Your task to perform on an android device: Add "macbook pro 15 inch" to the cart on bestbuy.com Image 0: 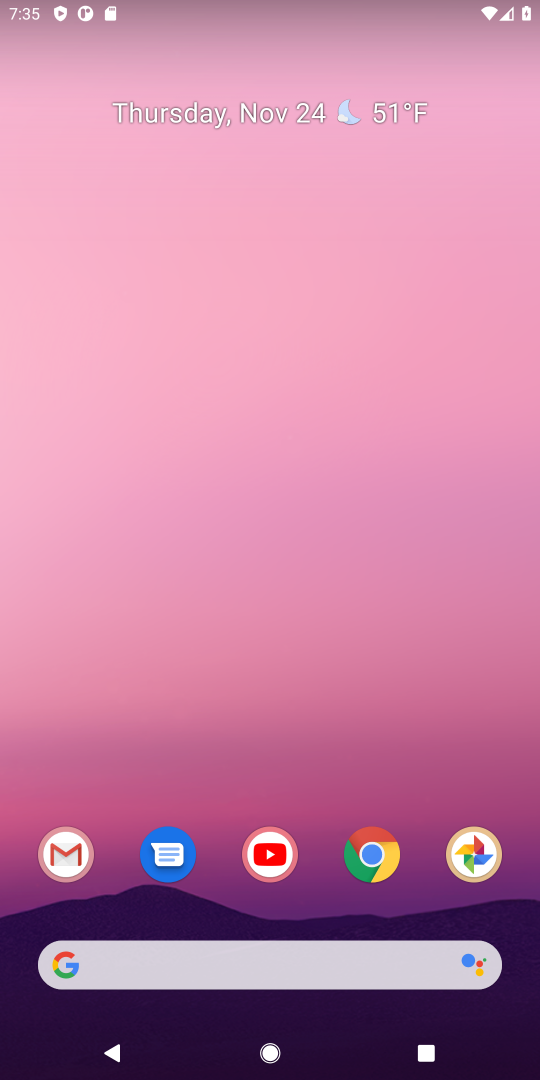
Step 0: click (381, 862)
Your task to perform on an android device: Add "macbook pro 15 inch" to the cart on bestbuy.com Image 1: 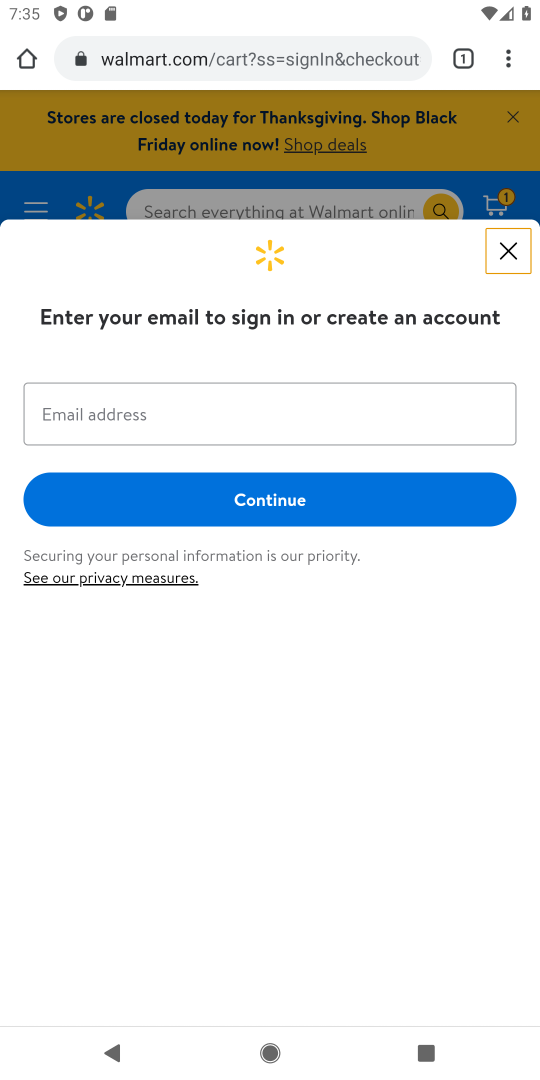
Step 1: click (234, 58)
Your task to perform on an android device: Add "macbook pro 15 inch" to the cart on bestbuy.com Image 2: 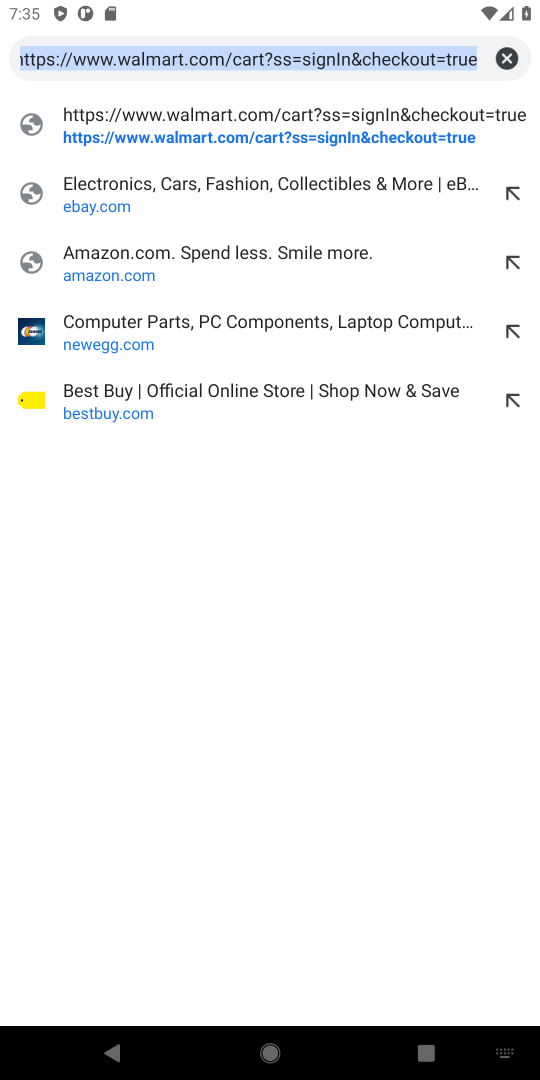
Step 2: click (124, 398)
Your task to perform on an android device: Add "macbook pro 15 inch" to the cart on bestbuy.com Image 3: 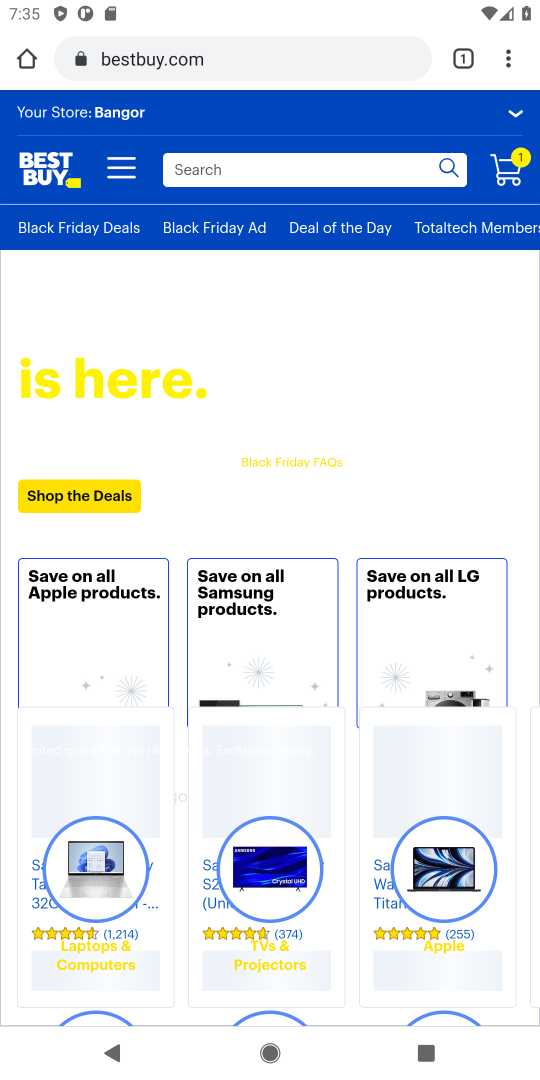
Step 3: click (247, 159)
Your task to perform on an android device: Add "macbook pro 15 inch" to the cart on bestbuy.com Image 4: 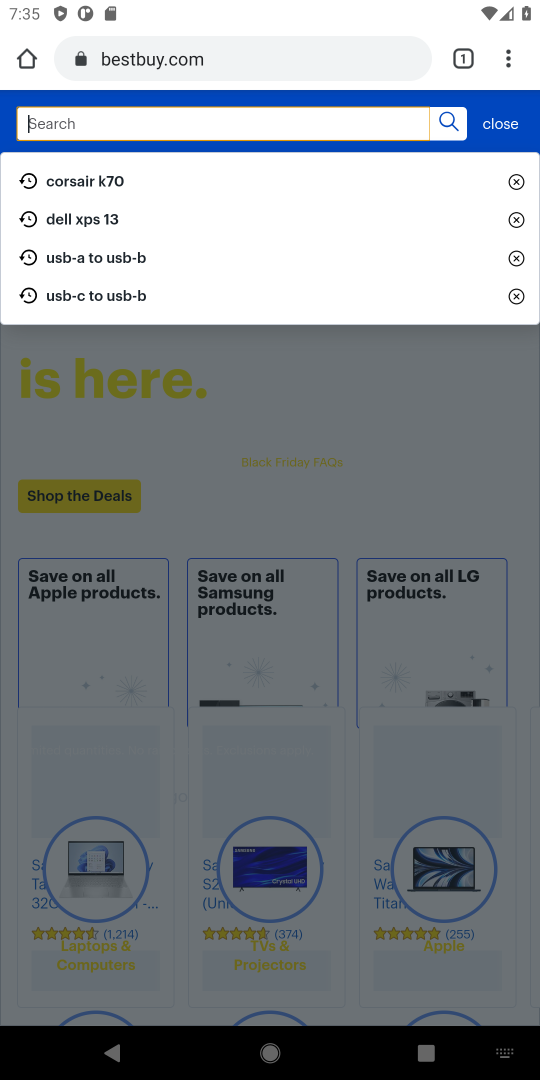
Step 4: type "macbook pro 15 inch"
Your task to perform on an android device: Add "macbook pro 15 inch" to the cart on bestbuy.com Image 5: 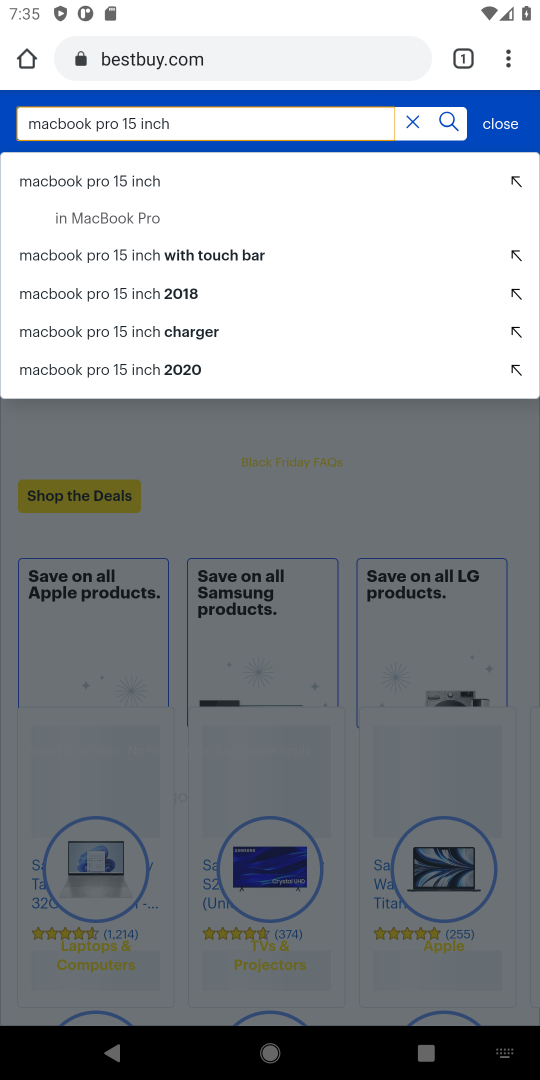
Step 5: click (122, 187)
Your task to perform on an android device: Add "macbook pro 15 inch" to the cart on bestbuy.com Image 6: 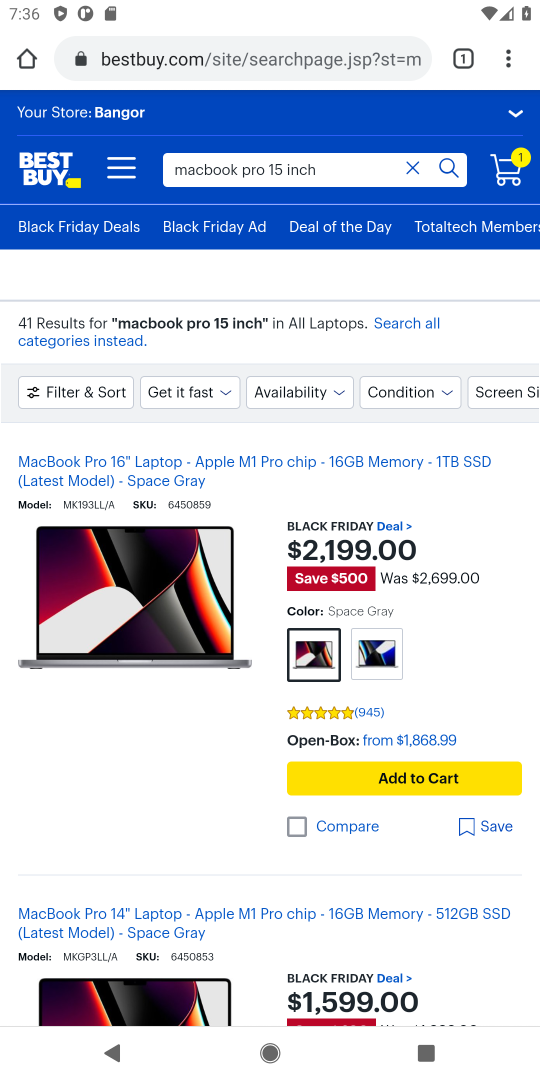
Step 6: drag from (208, 718) to (225, 352)
Your task to perform on an android device: Add "macbook pro 15 inch" to the cart on bestbuy.com Image 7: 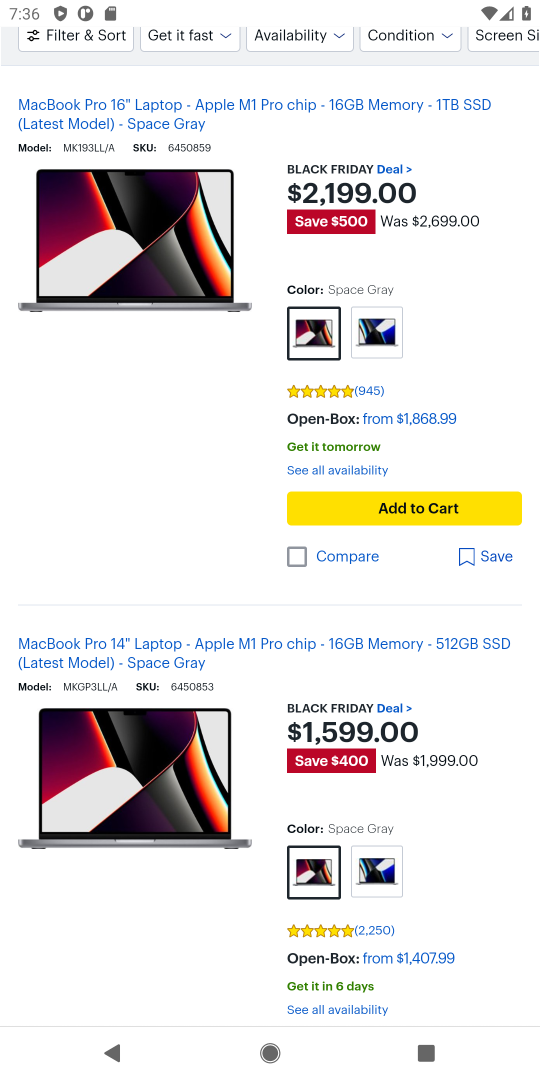
Step 7: drag from (188, 702) to (208, 318)
Your task to perform on an android device: Add "macbook pro 15 inch" to the cart on bestbuy.com Image 8: 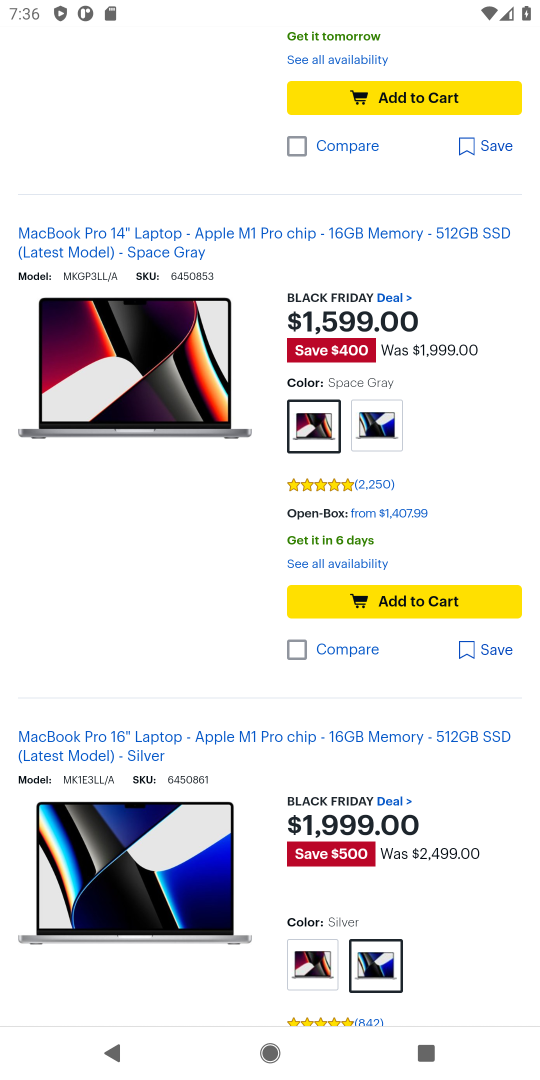
Step 8: drag from (172, 581) to (175, 171)
Your task to perform on an android device: Add "macbook pro 15 inch" to the cart on bestbuy.com Image 9: 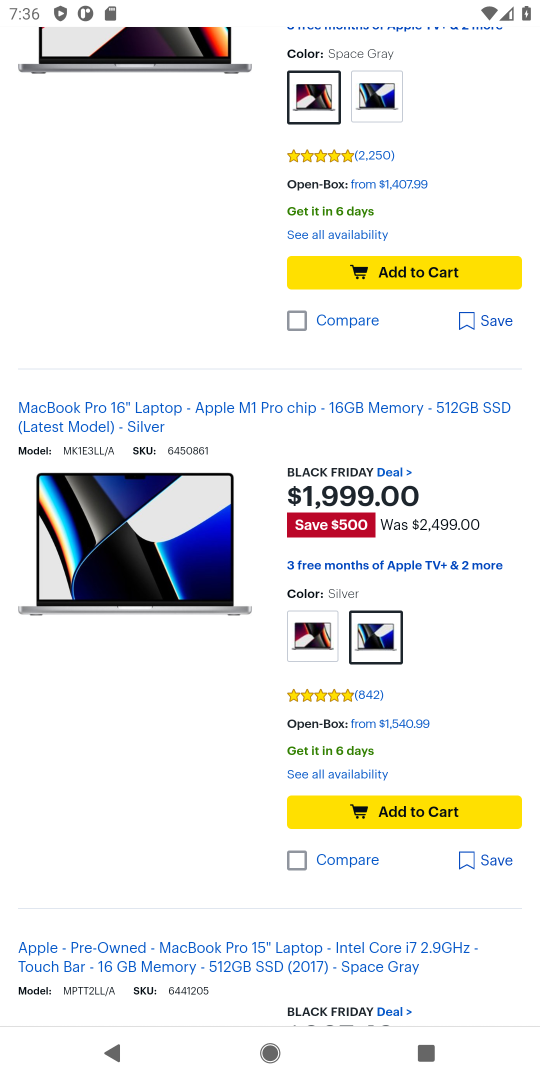
Step 9: drag from (165, 758) to (169, 373)
Your task to perform on an android device: Add "macbook pro 15 inch" to the cart on bestbuy.com Image 10: 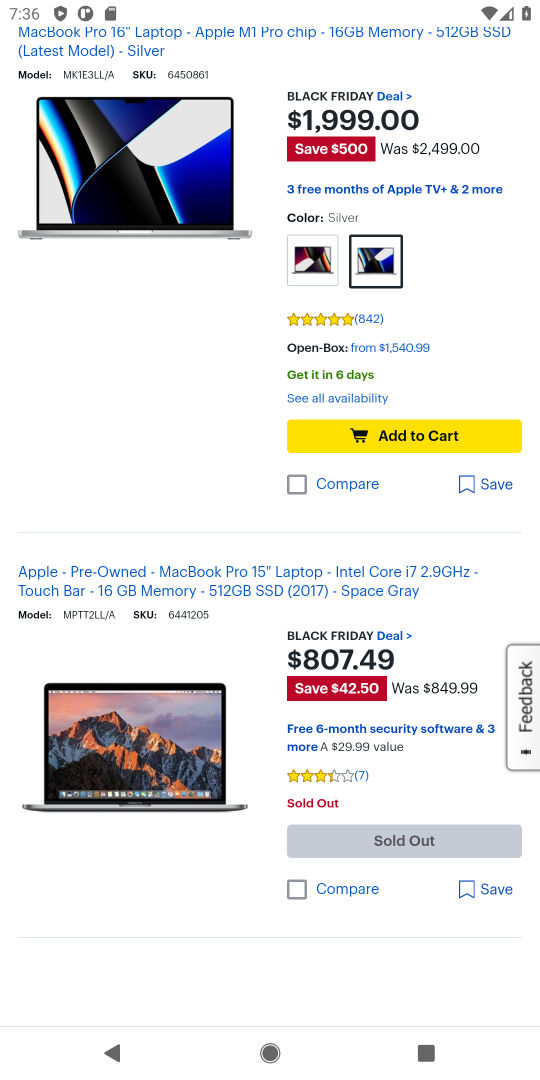
Step 10: drag from (142, 834) to (144, 392)
Your task to perform on an android device: Add "macbook pro 15 inch" to the cart on bestbuy.com Image 11: 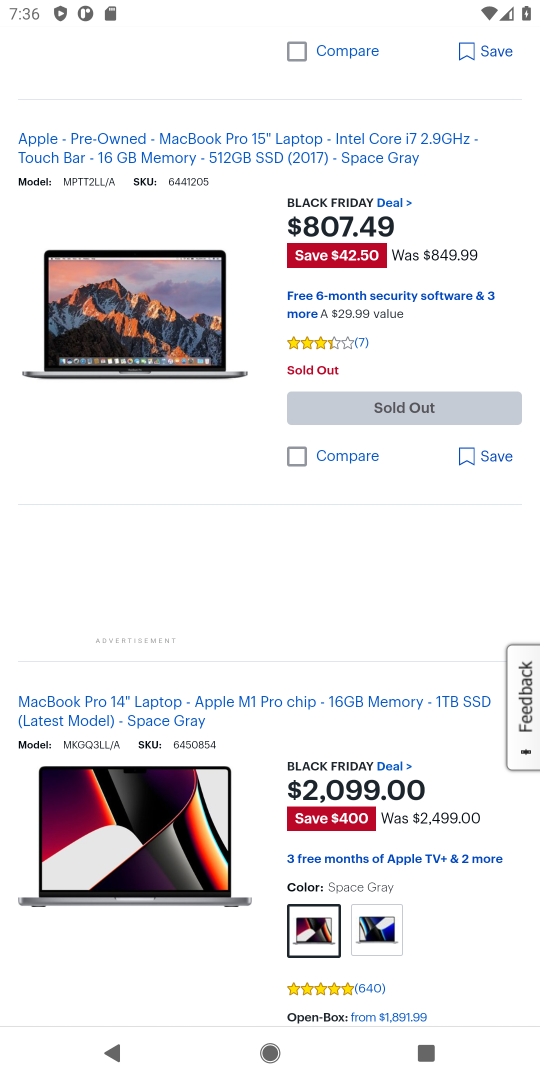
Step 11: drag from (146, 760) to (165, 336)
Your task to perform on an android device: Add "macbook pro 15 inch" to the cart on bestbuy.com Image 12: 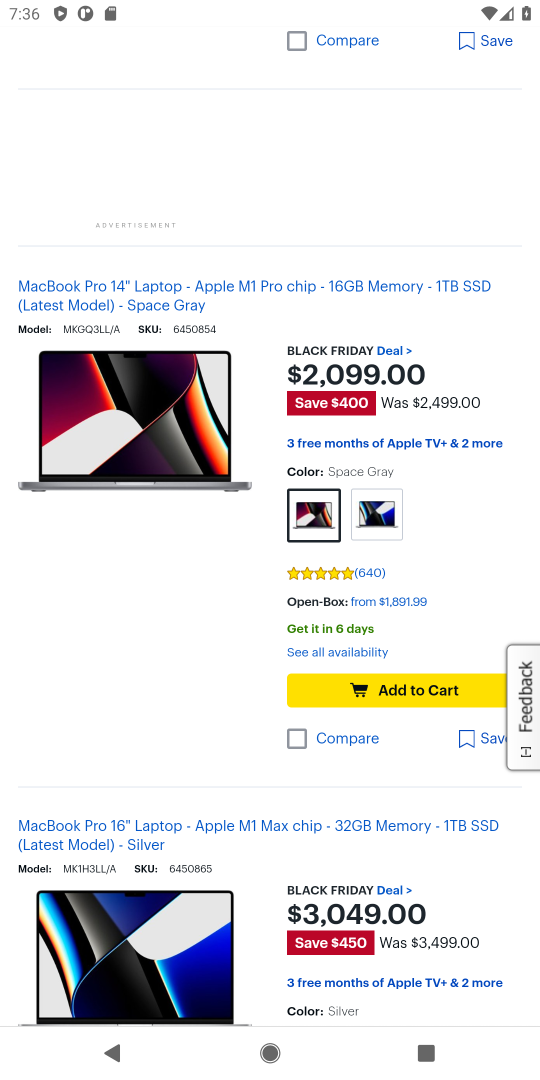
Step 12: drag from (163, 643) to (165, 279)
Your task to perform on an android device: Add "macbook pro 15 inch" to the cart on bestbuy.com Image 13: 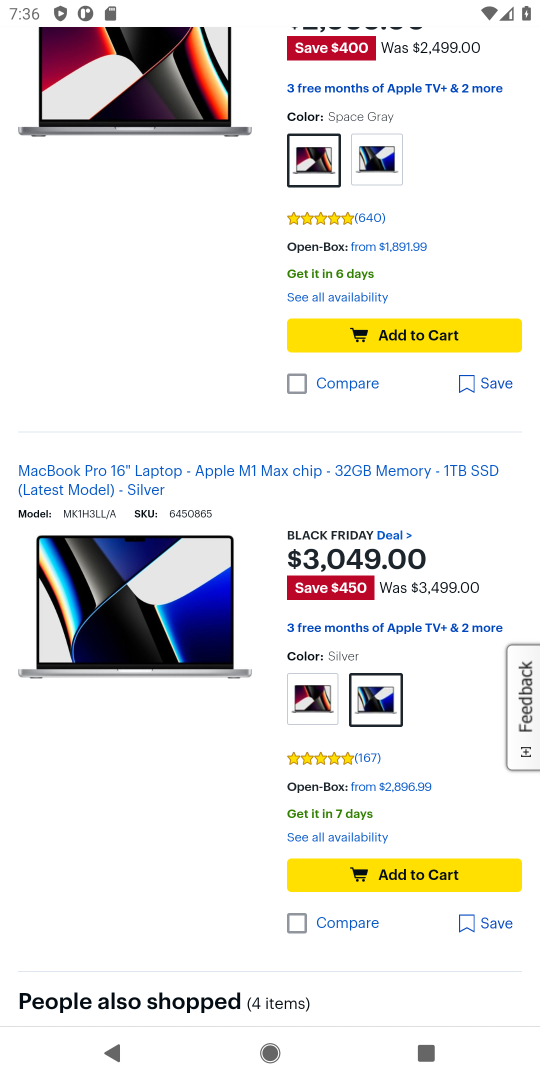
Step 13: drag from (139, 824) to (147, 250)
Your task to perform on an android device: Add "macbook pro 15 inch" to the cart on bestbuy.com Image 14: 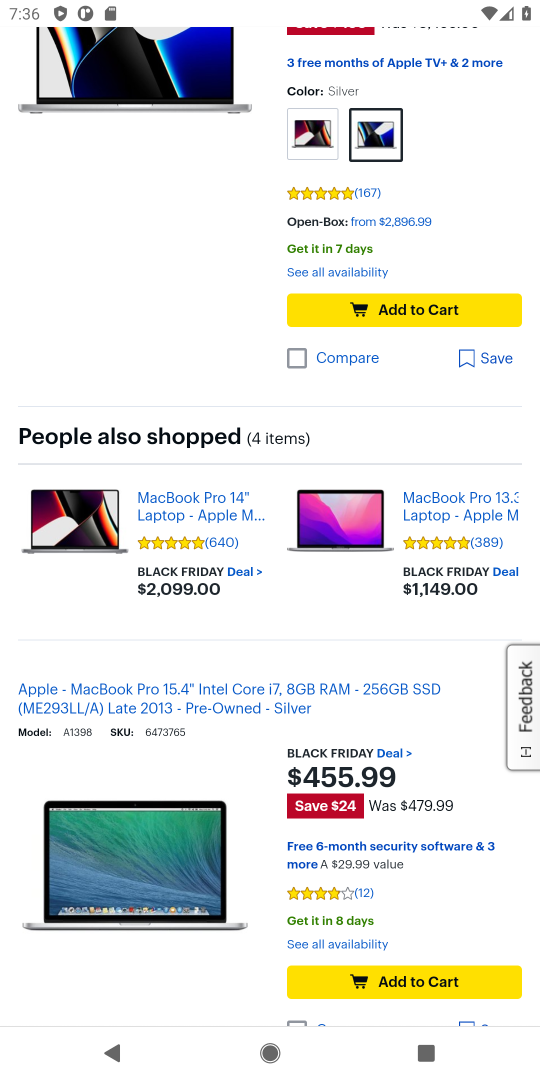
Step 14: drag from (118, 650) to (121, 381)
Your task to perform on an android device: Add "macbook pro 15 inch" to the cart on bestbuy.com Image 15: 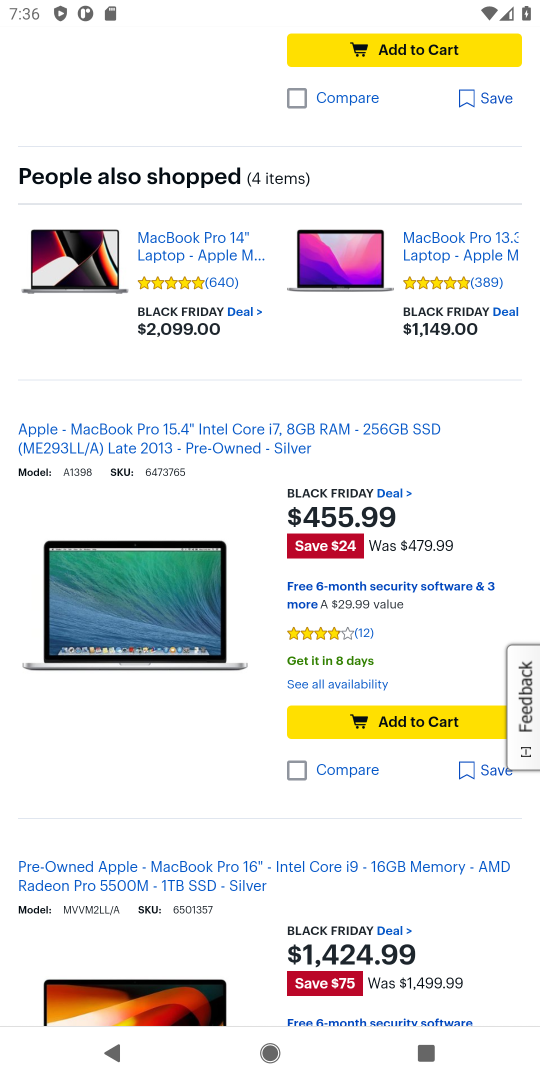
Step 15: click (382, 718)
Your task to perform on an android device: Add "macbook pro 15 inch" to the cart on bestbuy.com Image 16: 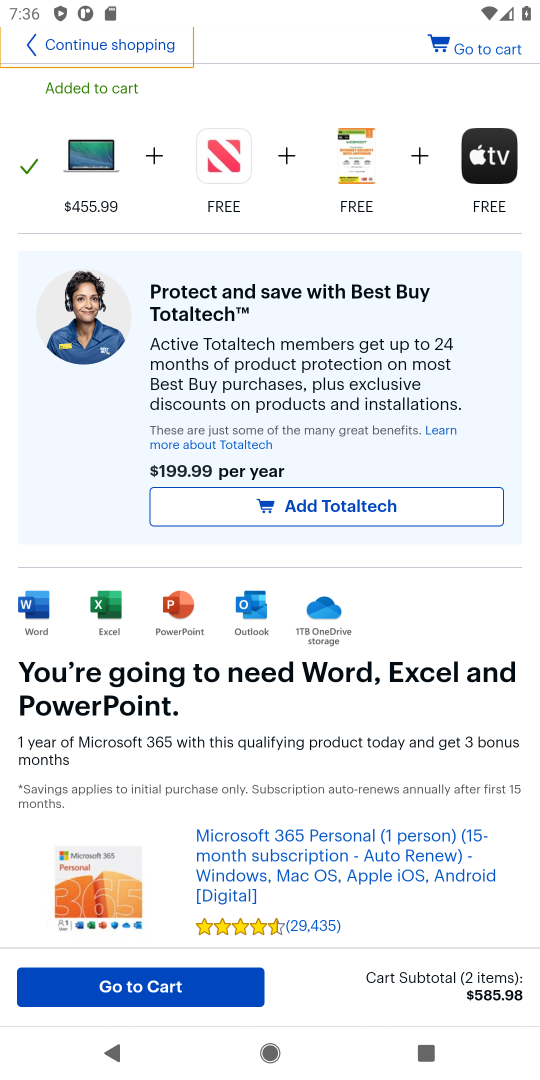
Step 16: task complete